Your task to perform on an android device: Empty the shopping cart on target. Search for "jbl charge 4" on target, select the first entry, and add it to the cart. Image 0: 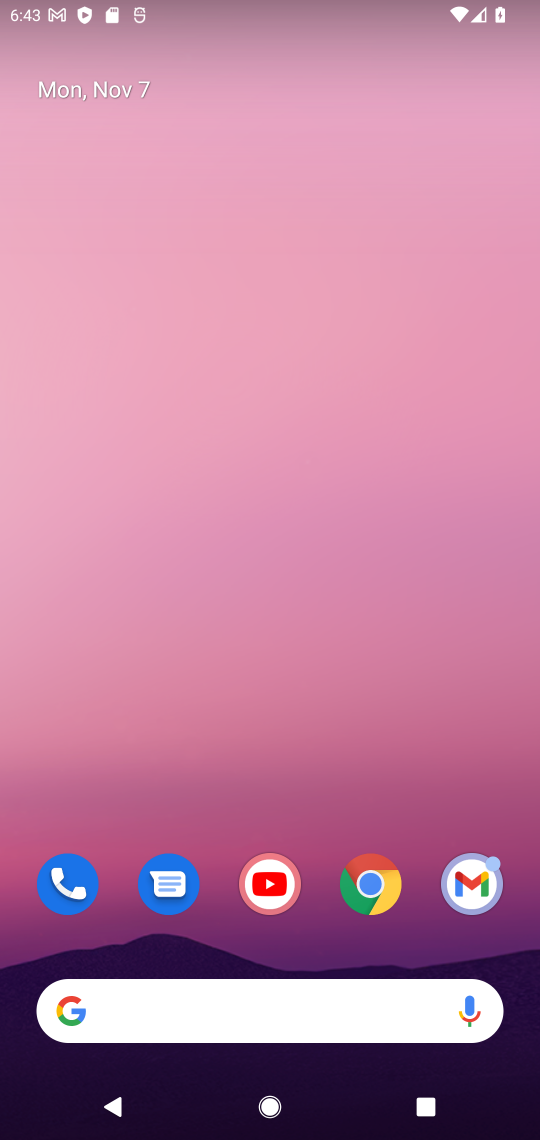
Step 0: click (379, 897)
Your task to perform on an android device: Empty the shopping cart on target. Search for "jbl charge 4" on target, select the first entry, and add it to the cart. Image 1: 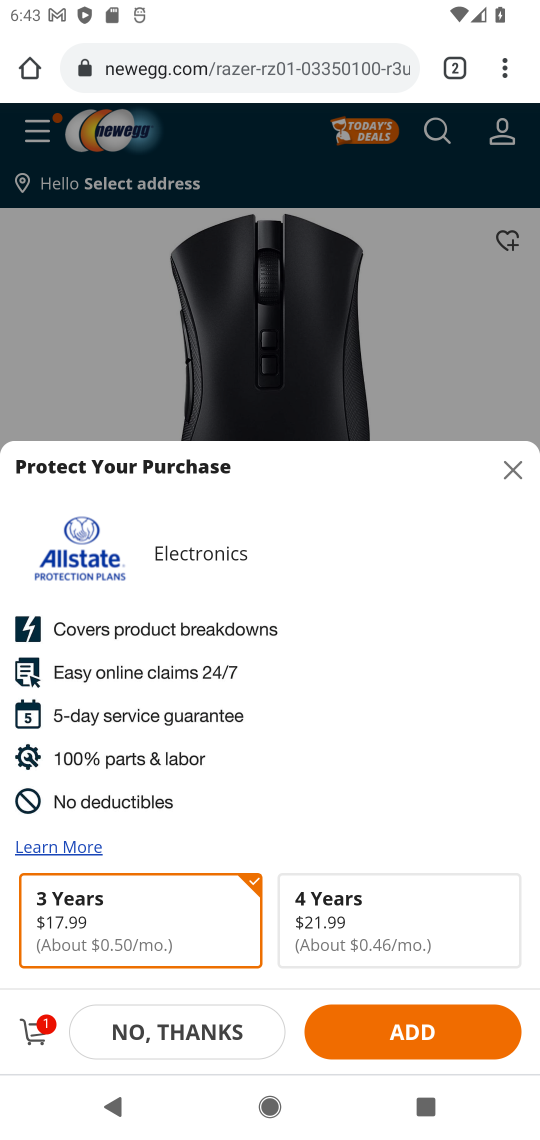
Step 1: click (454, 66)
Your task to perform on an android device: Empty the shopping cart on target. Search for "jbl charge 4" on target, select the first entry, and add it to the cart. Image 2: 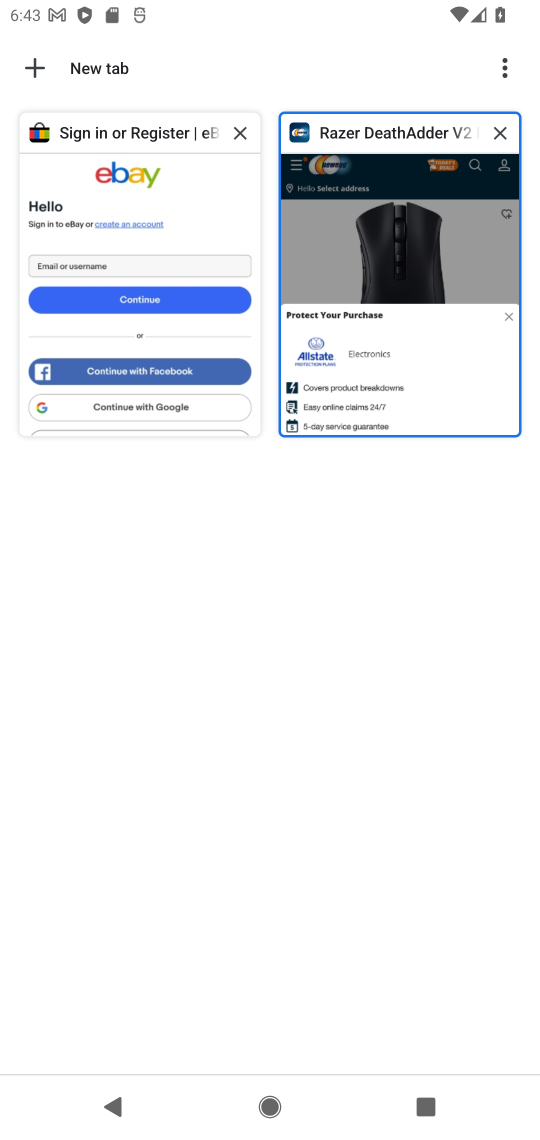
Step 2: click (33, 78)
Your task to perform on an android device: Empty the shopping cart on target. Search for "jbl charge 4" on target, select the first entry, and add it to the cart. Image 3: 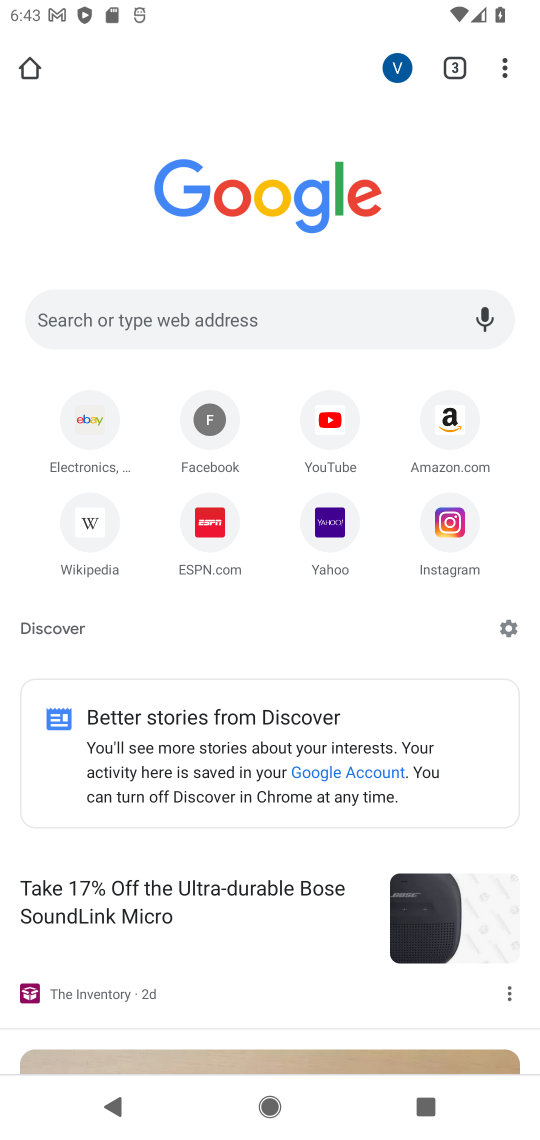
Step 3: click (211, 318)
Your task to perform on an android device: Empty the shopping cart on target. Search for "jbl charge 4" on target, select the first entry, and add it to the cart. Image 4: 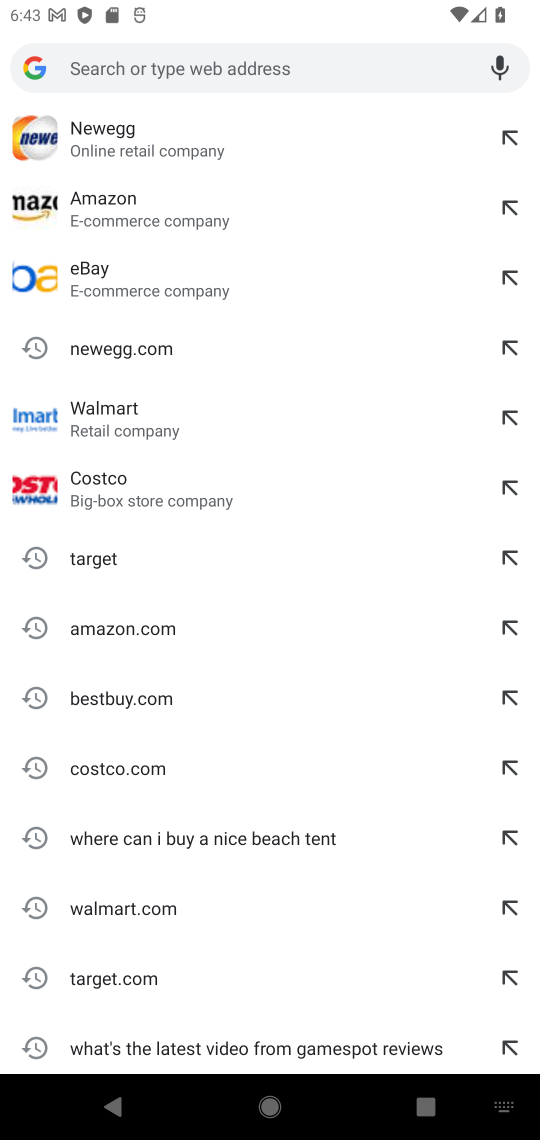
Step 4: click (95, 559)
Your task to perform on an android device: Empty the shopping cart on target. Search for "jbl charge 4" on target, select the first entry, and add it to the cart. Image 5: 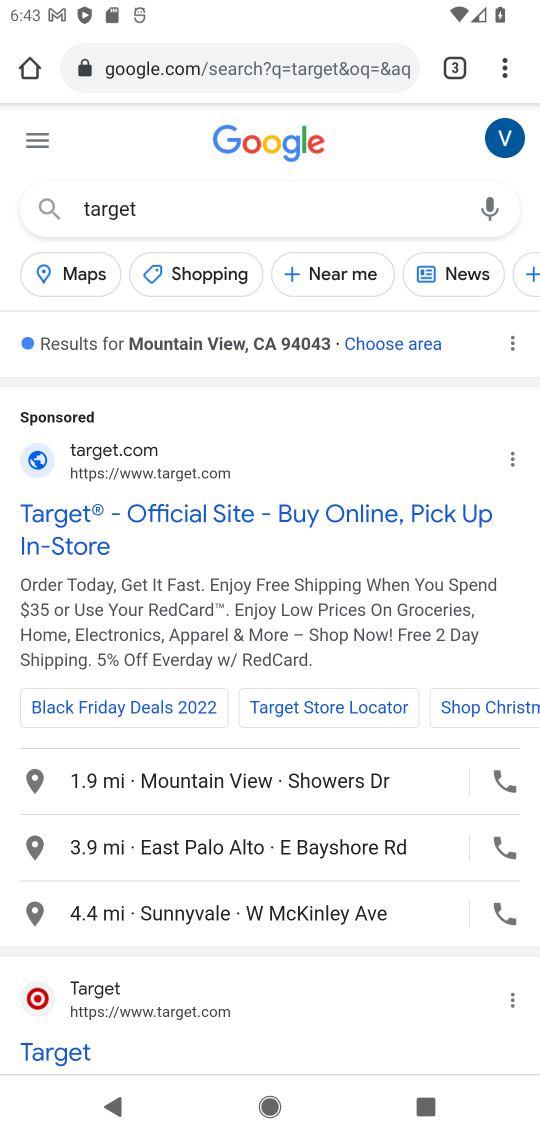
Step 5: drag from (257, 982) to (332, 325)
Your task to perform on an android device: Empty the shopping cart on target. Search for "jbl charge 4" on target, select the first entry, and add it to the cart. Image 6: 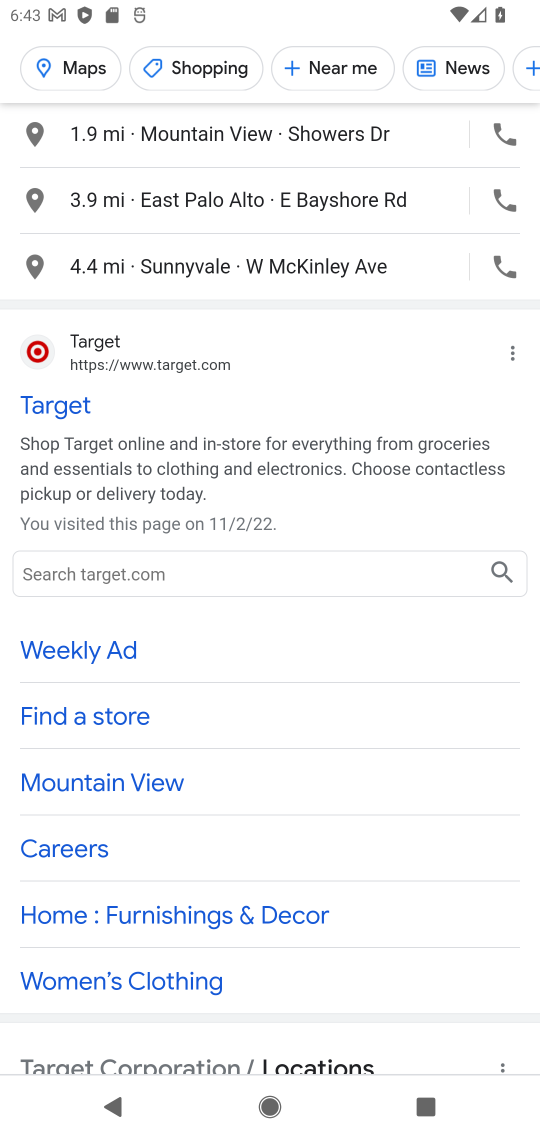
Step 6: click (59, 571)
Your task to perform on an android device: Empty the shopping cart on target. Search for "jbl charge 4" on target, select the first entry, and add it to the cart. Image 7: 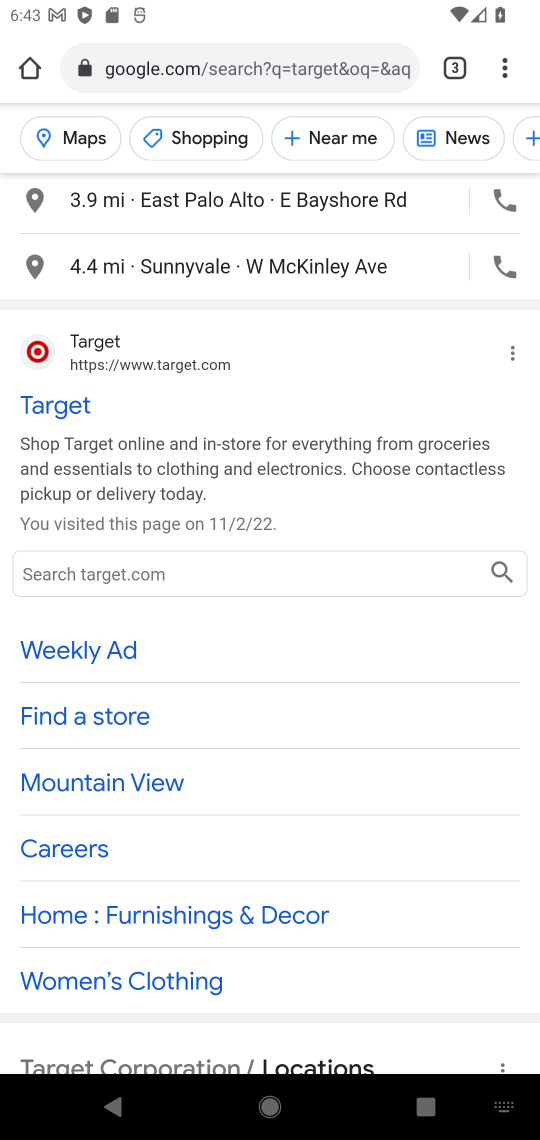
Step 7: type "jbl charge 4"
Your task to perform on an android device: Empty the shopping cart on target. Search for "jbl charge 4" on target, select the first entry, and add it to the cart. Image 8: 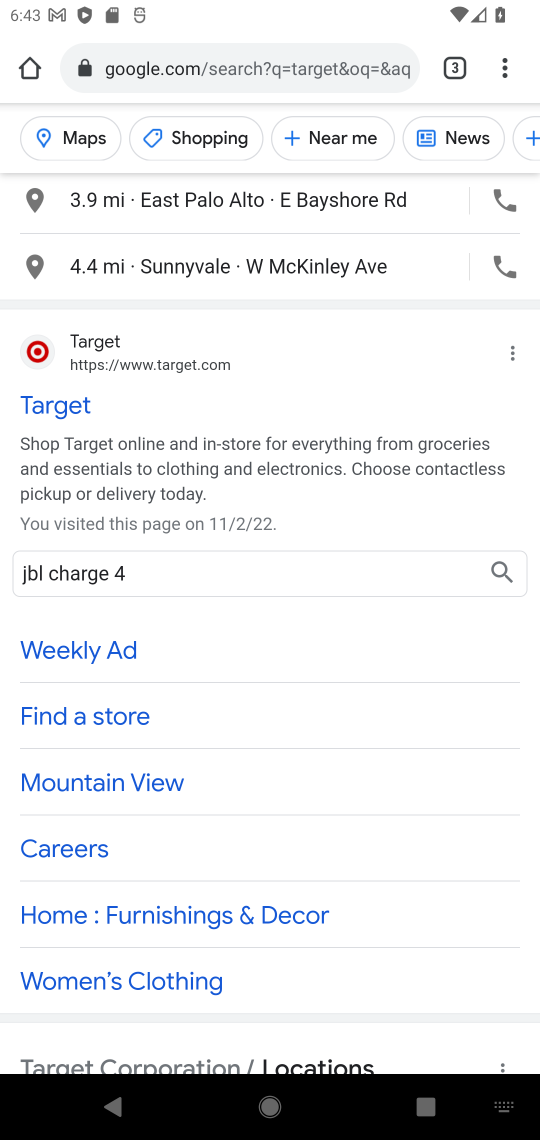
Step 8: click (501, 572)
Your task to perform on an android device: Empty the shopping cart on target. Search for "jbl charge 4" on target, select the first entry, and add it to the cart. Image 9: 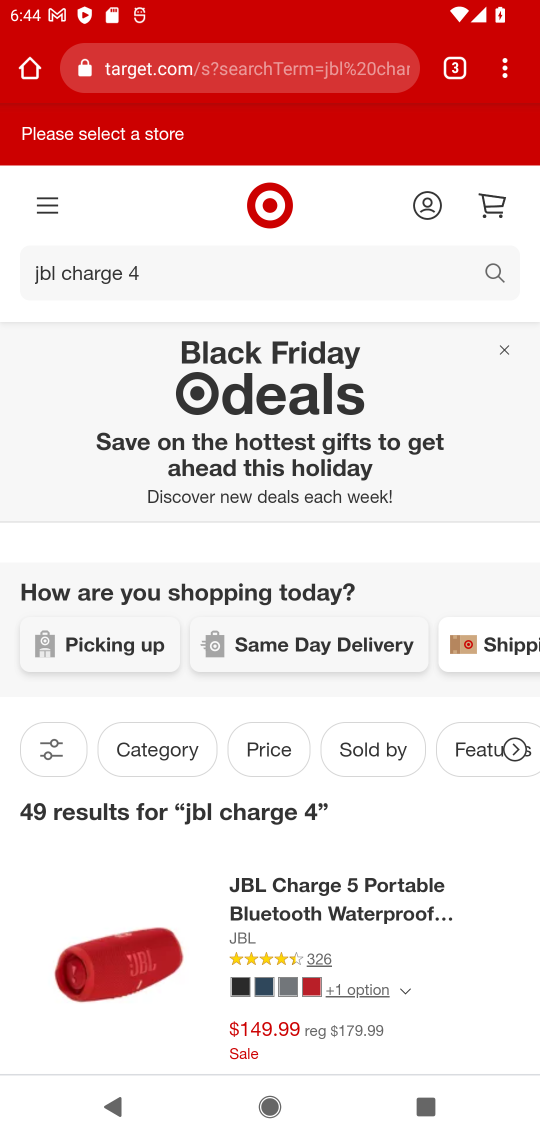
Step 9: drag from (413, 979) to (457, 542)
Your task to perform on an android device: Empty the shopping cart on target. Search for "jbl charge 4" on target, select the first entry, and add it to the cart. Image 10: 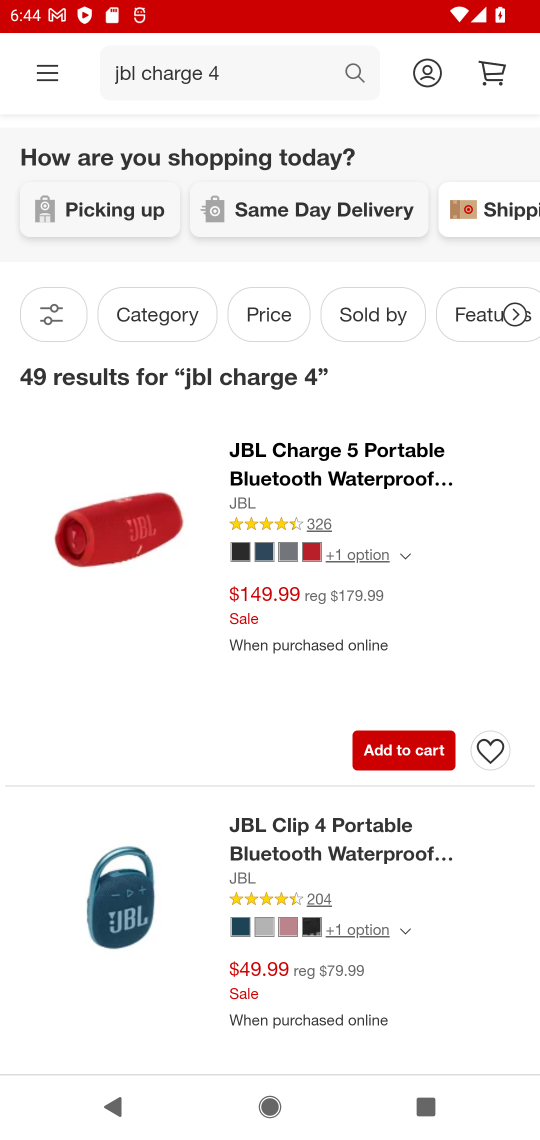
Step 10: click (420, 750)
Your task to perform on an android device: Empty the shopping cart on target. Search for "jbl charge 4" on target, select the first entry, and add it to the cart. Image 11: 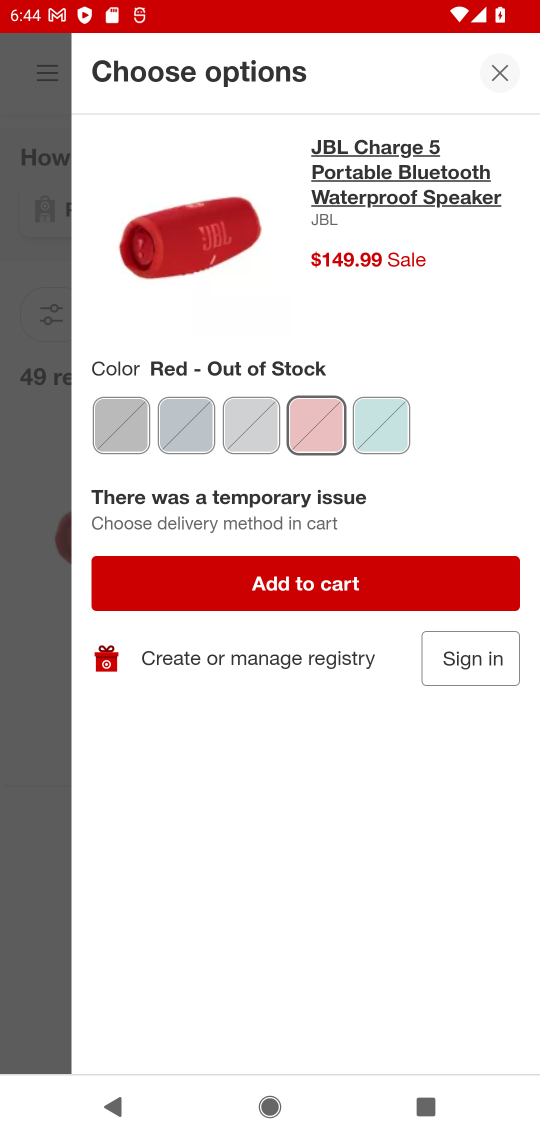
Step 11: click (383, 584)
Your task to perform on an android device: Empty the shopping cart on target. Search for "jbl charge 4" on target, select the first entry, and add it to the cart. Image 12: 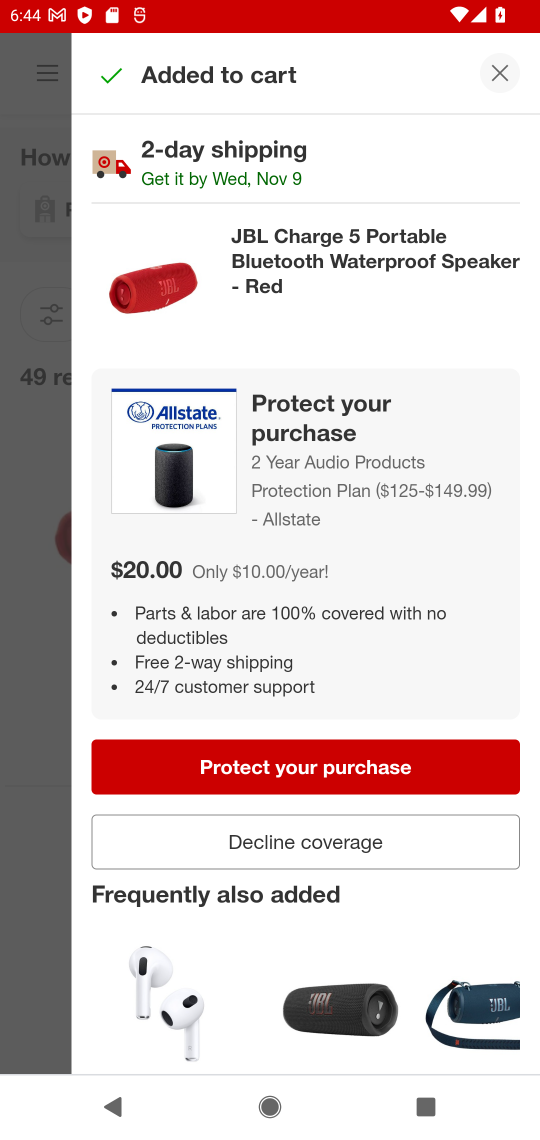
Step 12: task complete